Your task to perform on an android device: check data usage Image 0: 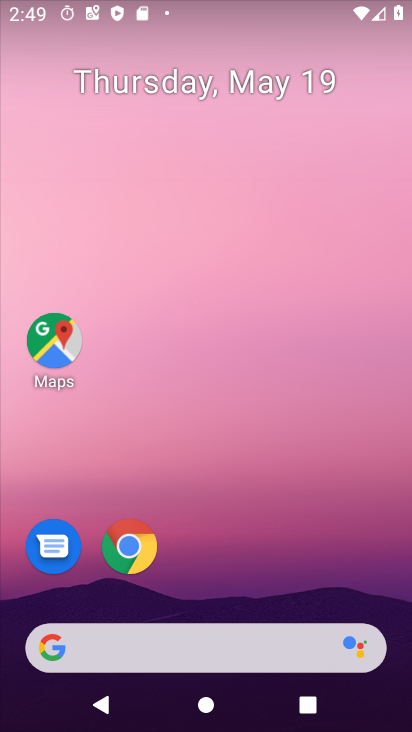
Step 0: drag from (193, 10) to (275, 344)
Your task to perform on an android device: check data usage Image 1: 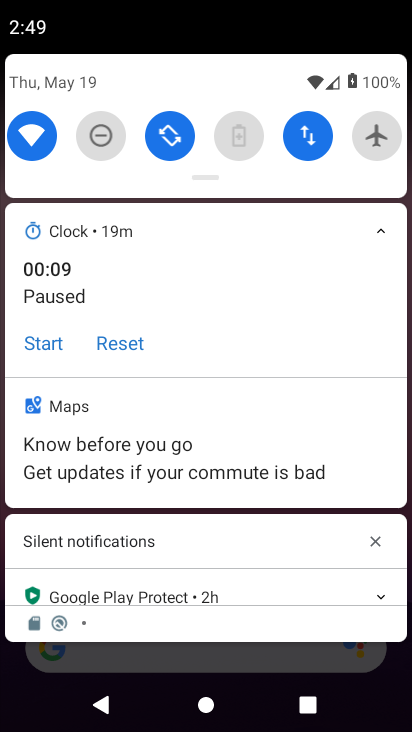
Step 1: click (319, 124)
Your task to perform on an android device: check data usage Image 2: 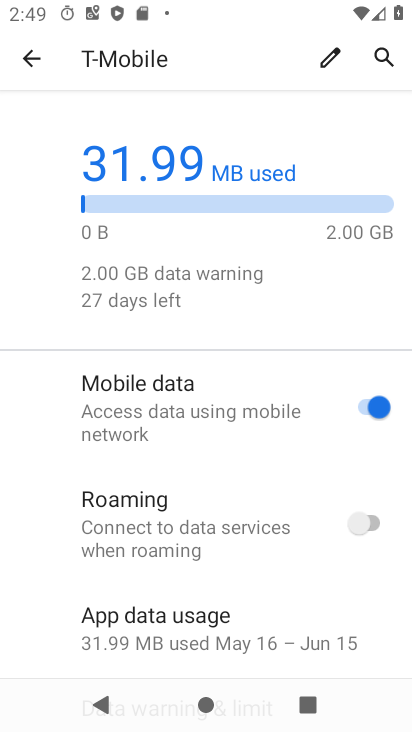
Step 2: task complete